Your task to perform on an android device: check battery use Image 0: 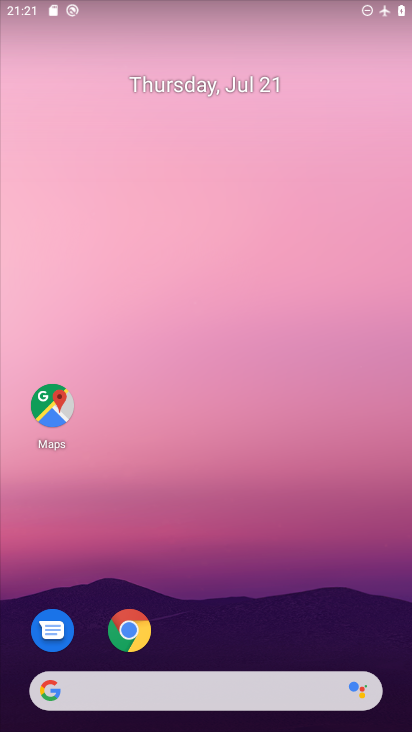
Step 0: drag from (327, 619) to (253, 59)
Your task to perform on an android device: check battery use Image 1: 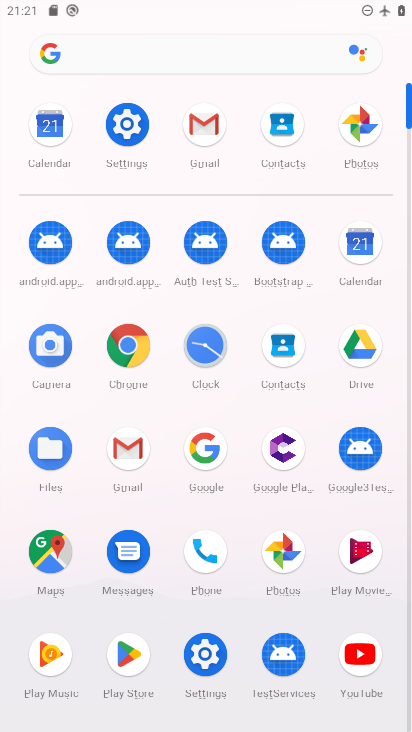
Step 1: click (122, 114)
Your task to perform on an android device: check battery use Image 2: 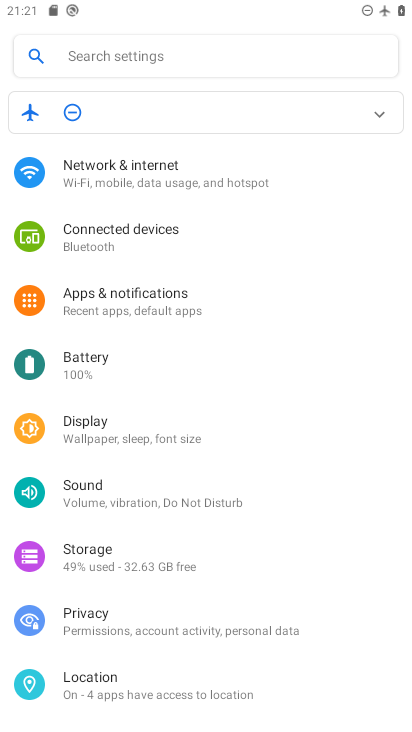
Step 2: click (104, 364)
Your task to perform on an android device: check battery use Image 3: 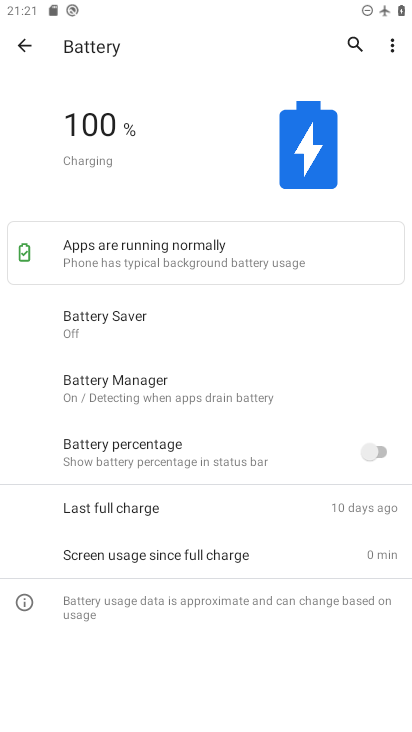
Step 3: click (395, 47)
Your task to perform on an android device: check battery use Image 4: 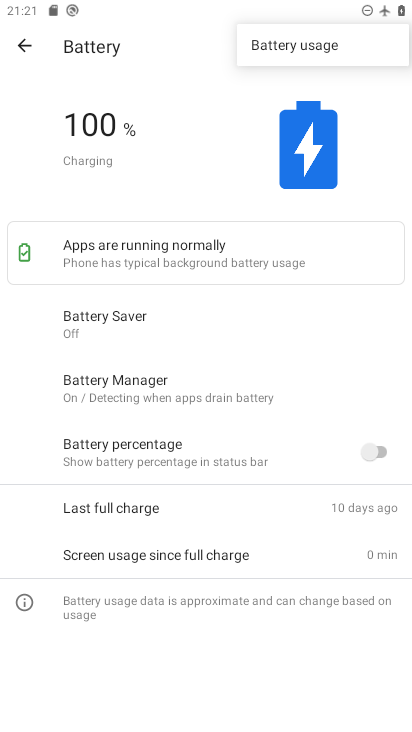
Step 4: click (358, 54)
Your task to perform on an android device: check battery use Image 5: 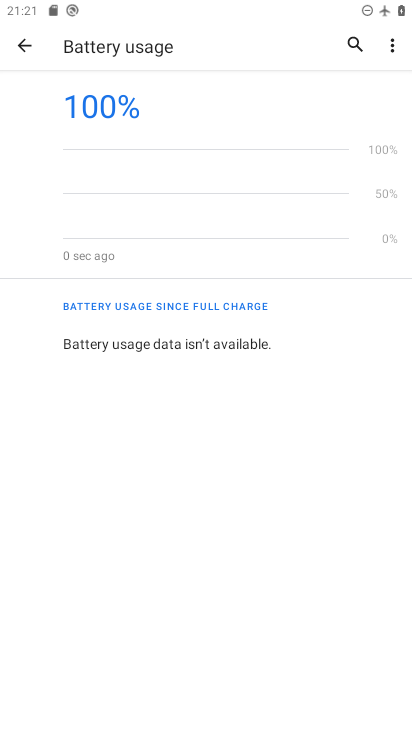
Step 5: task complete